Your task to perform on an android device: turn on location history Image 0: 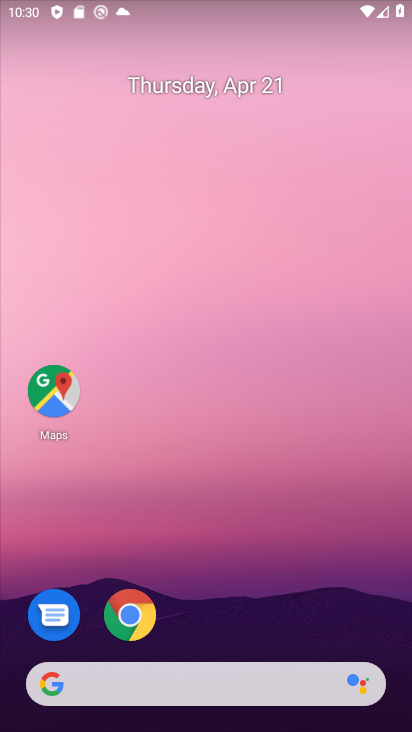
Step 0: drag from (211, 639) to (239, 119)
Your task to perform on an android device: turn on location history Image 1: 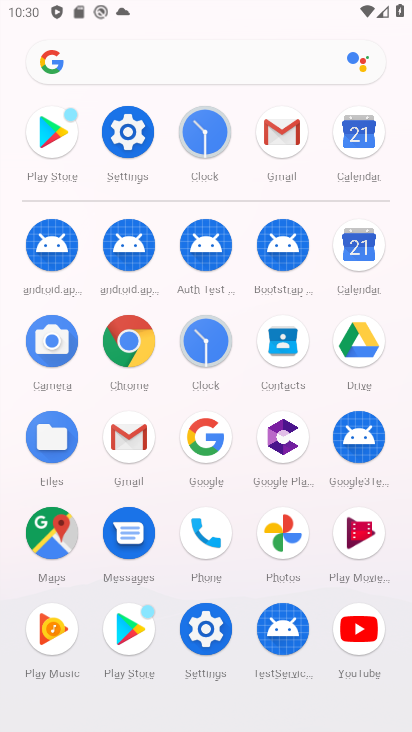
Step 1: click (124, 126)
Your task to perform on an android device: turn on location history Image 2: 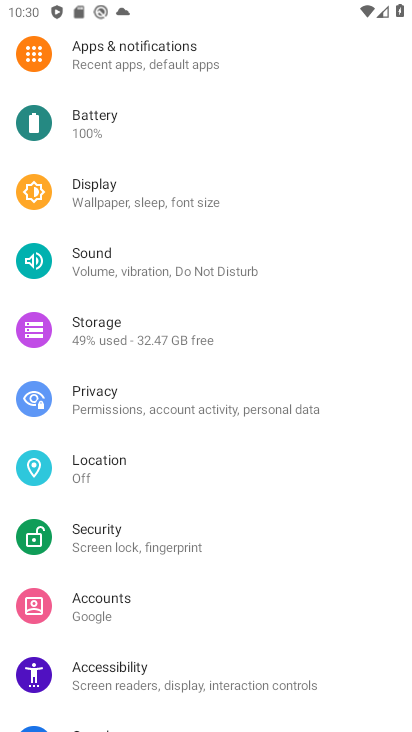
Step 2: click (124, 471)
Your task to perform on an android device: turn on location history Image 3: 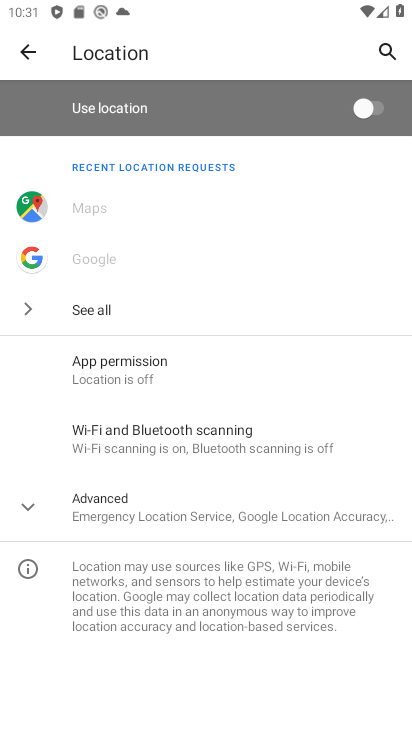
Step 3: click (36, 506)
Your task to perform on an android device: turn on location history Image 4: 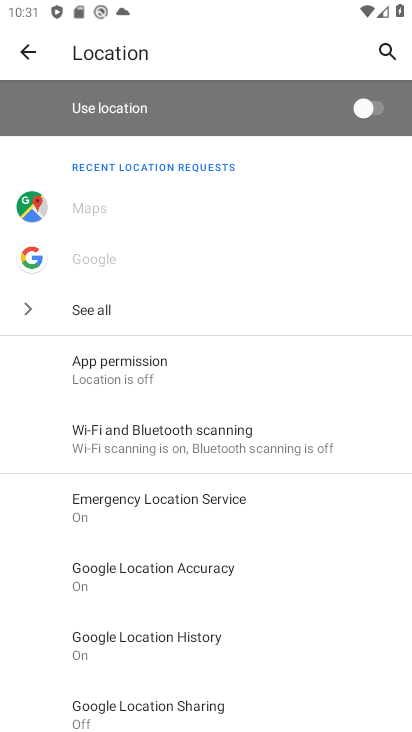
Step 4: click (125, 644)
Your task to perform on an android device: turn on location history Image 5: 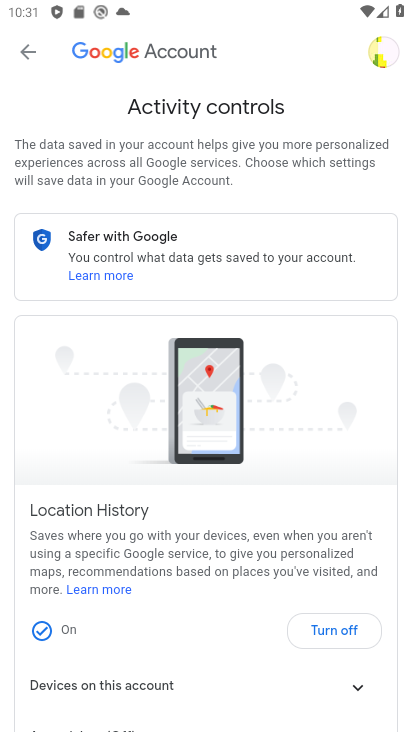
Step 5: task complete